Your task to perform on an android device: empty trash in the gmail app Image 0: 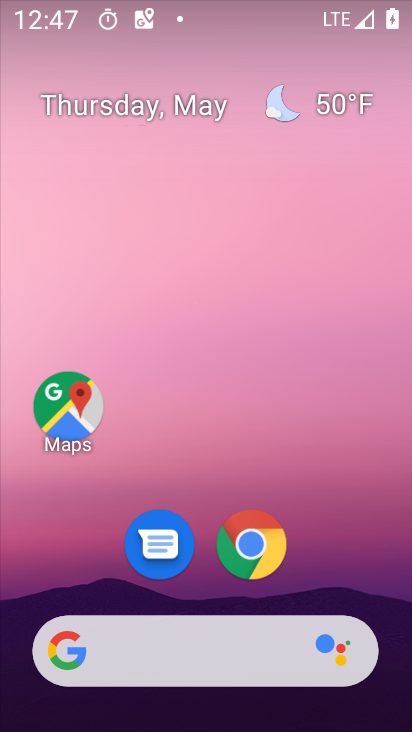
Step 0: drag from (231, 635) to (191, 98)
Your task to perform on an android device: empty trash in the gmail app Image 1: 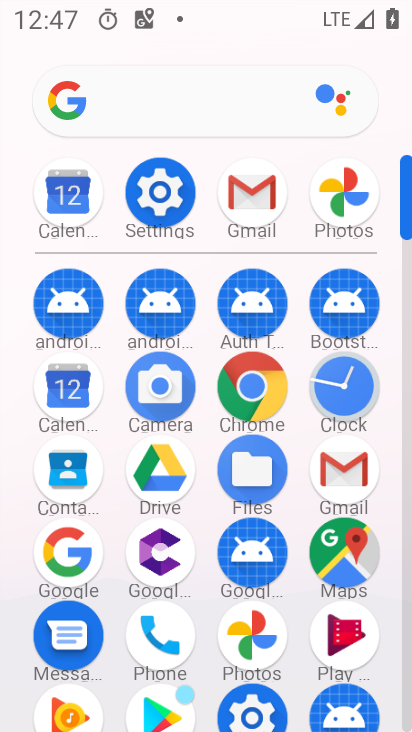
Step 1: click (338, 465)
Your task to perform on an android device: empty trash in the gmail app Image 2: 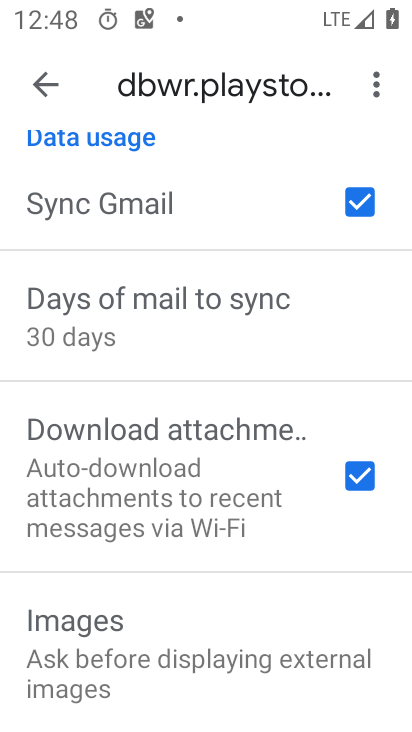
Step 2: click (53, 84)
Your task to perform on an android device: empty trash in the gmail app Image 3: 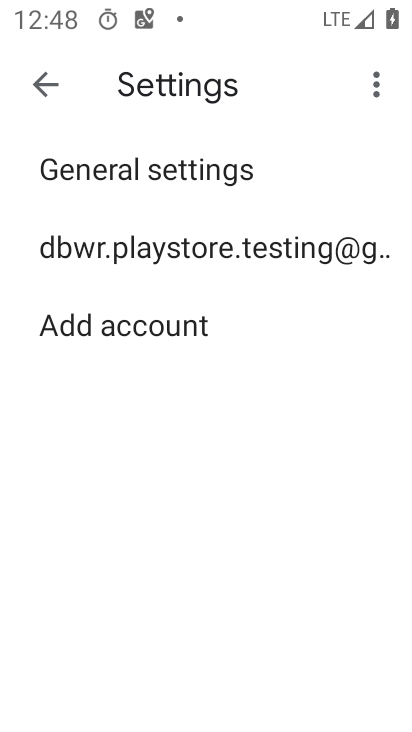
Step 3: click (53, 84)
Your task to perform on an android device: empty trash in the gmail app Image 4: 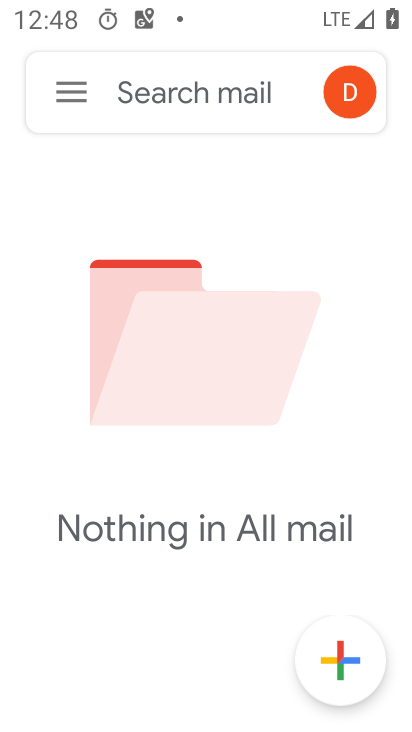
Step 4: click (66, 79)
Your task to perform on an android device: empty trash in the gmail app Image 5: 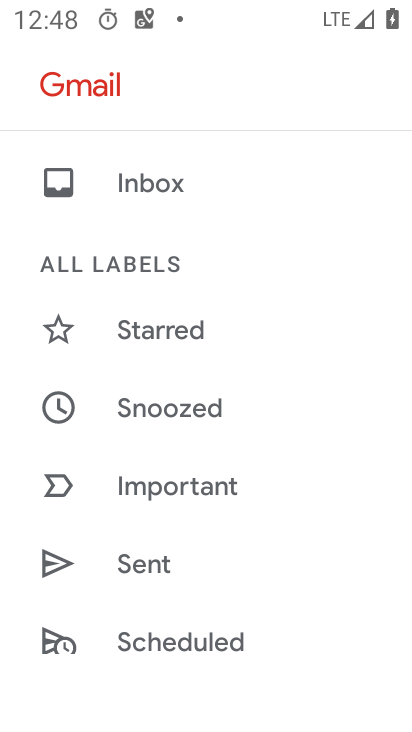
Step 5: drag from (134, 525) to (82, 39)
Your task to perform on an android device: empty trash in the gmail app Image 6: 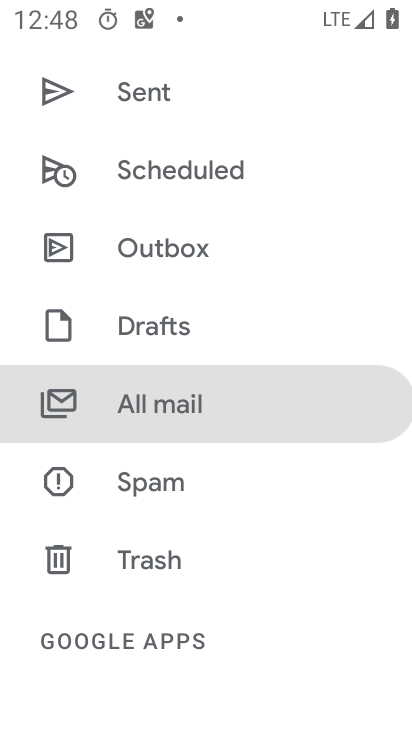
Step 6: click (125, 540)
Your task to perform on an android device: empty trash in the gmail app Image 7: 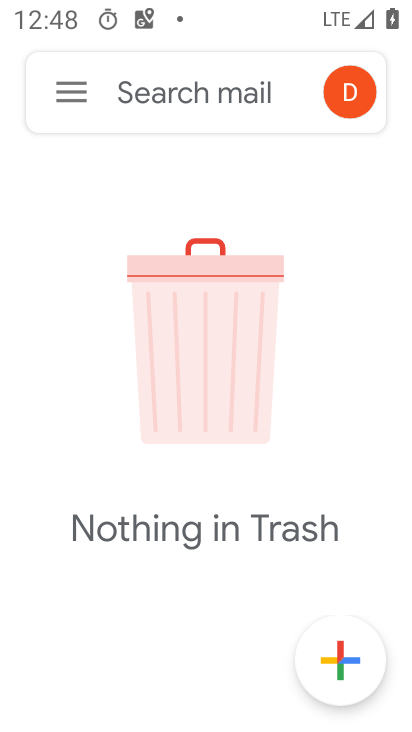
Step 7: task complete